Your task to perform on an android device: toggle location history Image 0: 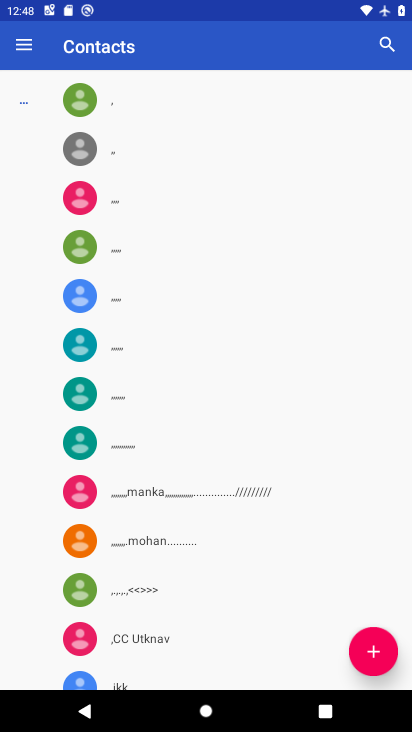
Step 0: press home button
Your task to perform on an android device: toggle location history Image 1: 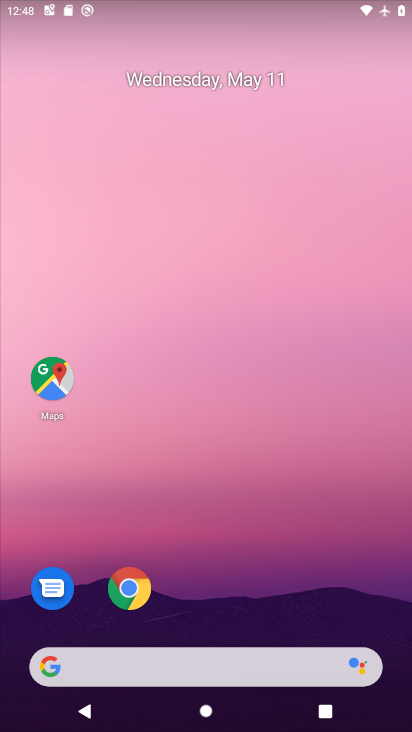
Step 1: drag from (157, 644) to (242, 184)
Your task to perform on an android device: toggle location history Image 2: 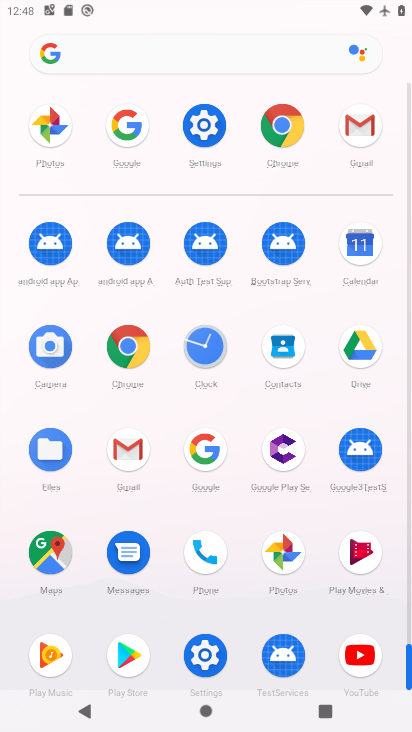
Step 2: click (202, 134)
Your task to perform on an android device: toggle location history Image 3: 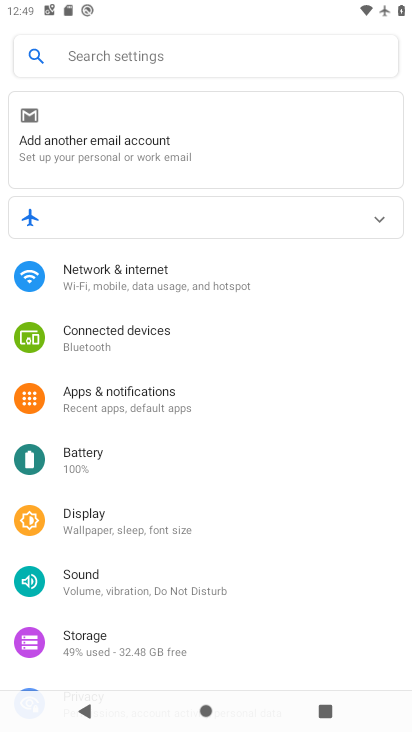
Step 3: drag from (108, 649) to (170, 280)
Your task to perform on an android device: toggle location history Image 4: 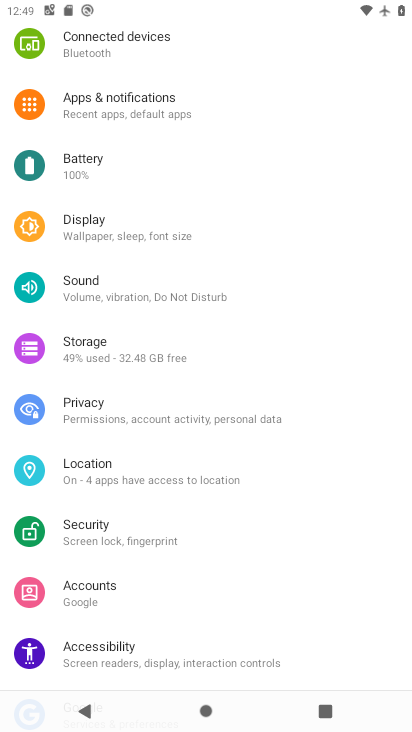
Step 4: click (97, 460)
Your task to perform on an android device: toggle location history Image 5: 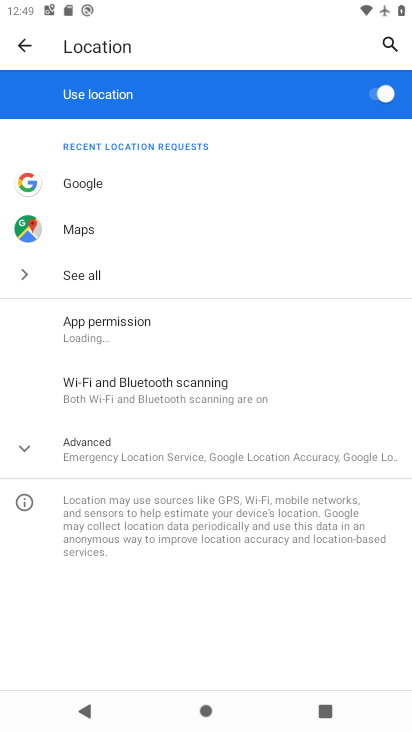
Step 5: click (112, 449)
Your task to perform on an android device: toggle location history Image 6: 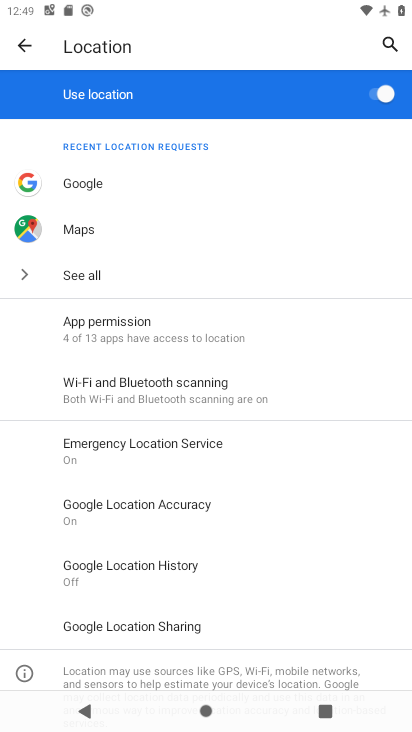
Step 6: click (132, 567)
Your task to perform on an android device: toggle location history Image 7: 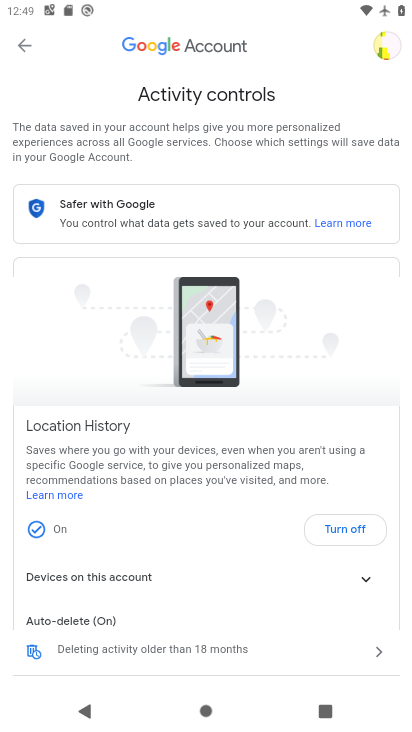
Step 7: click (349, 528)
Your task to perform on an android device: toggle location history Image 8: 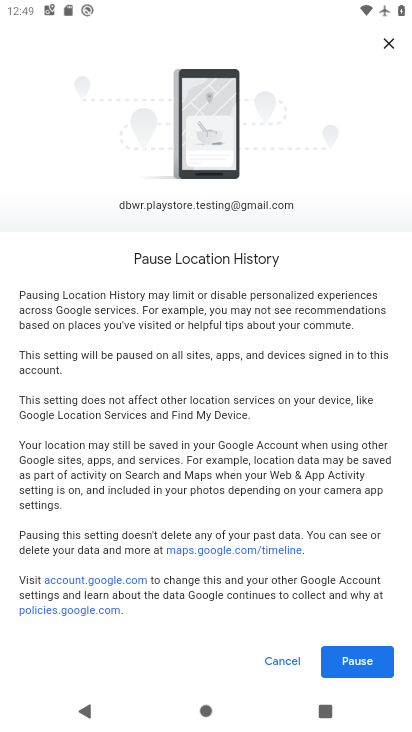
Step 8: click (366, 660)
Your task to perform on an android device: toggle location history Image 9: 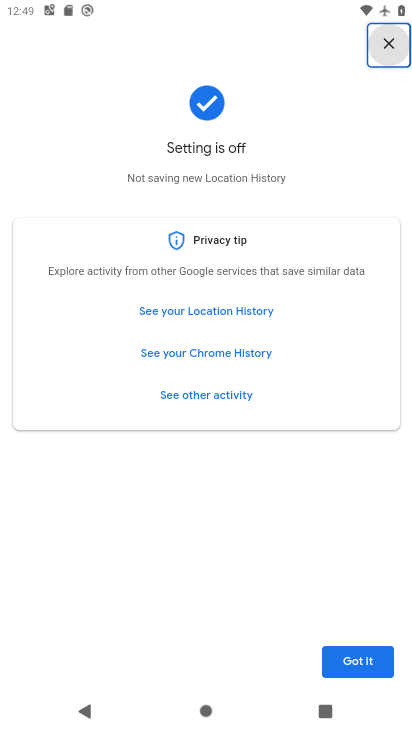
Step 9: click (345, 663)
Your task to perform on an android device: toggle location history Image 10: 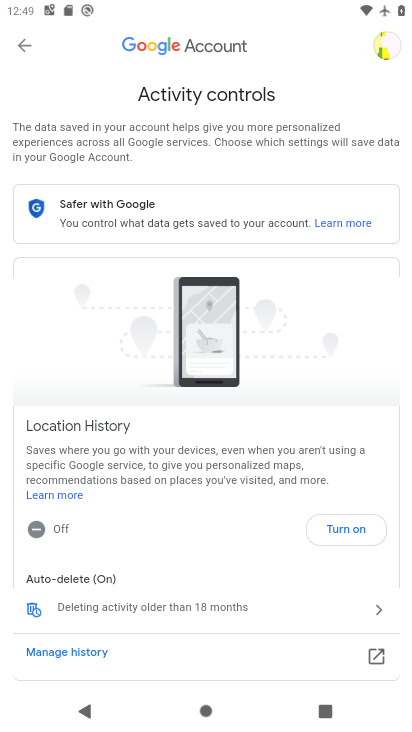
Step 10: task complete